Your task to perform on an android device: change your default location settings in chrome Image 0: 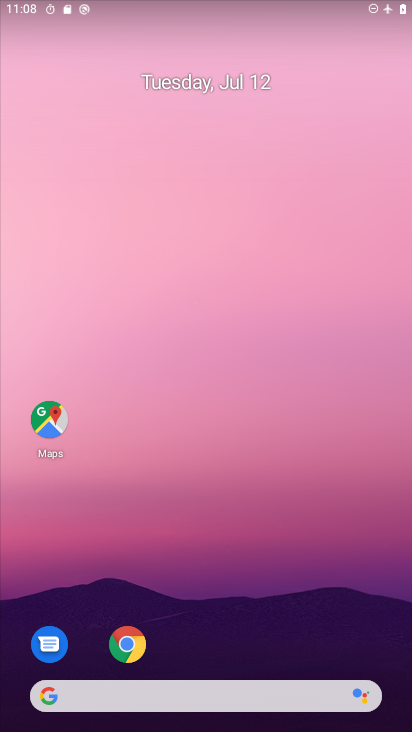
Step 0: click (137, 637)
Your task to perform on an android device: change your default location settings in chrome Image 1: 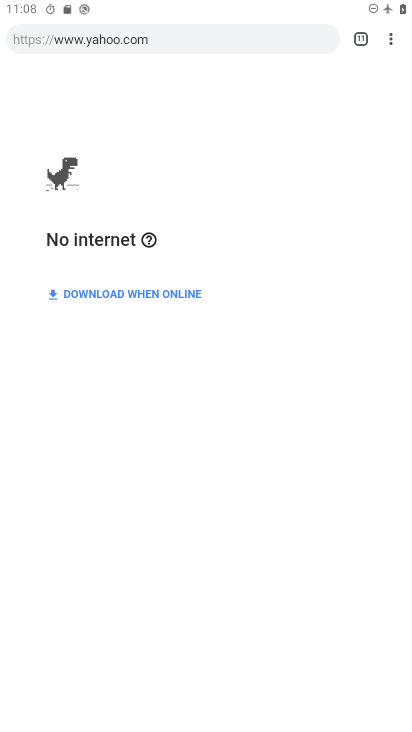
Step 1: click (386, 42)
Your task to perform on an android device: change your default location settings in chrome Image 2: 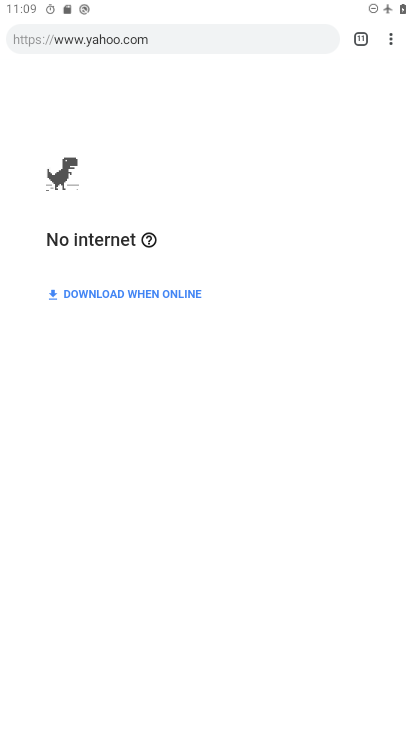
Step 2: click (388, 42)
Your task to perform on an android device: change your default location settings in chrome Image 3: 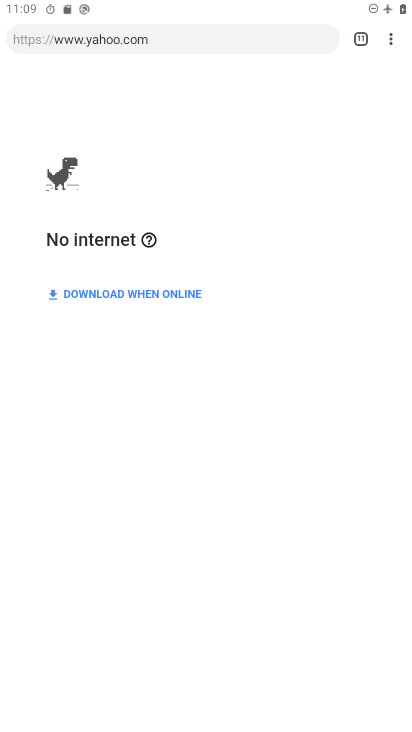
Step 3: click (391, 45)
Your task to perform on an android device: change your default location settings in chrome Image 4: 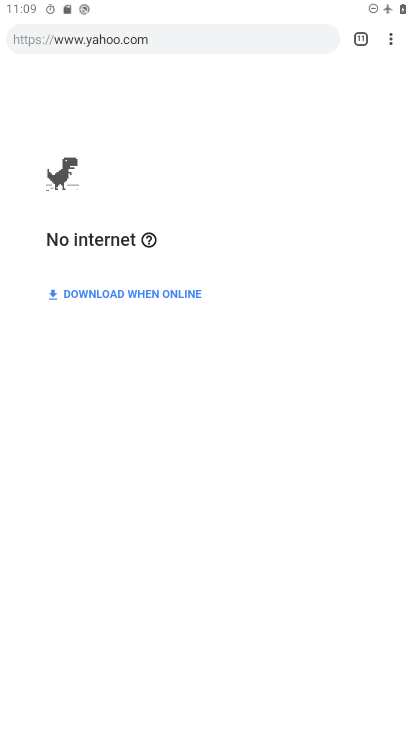
Step 4: drag from (391, 45) to (260, 429)
Your task to perform on an android device: change your default location settings in chrome Image 5: 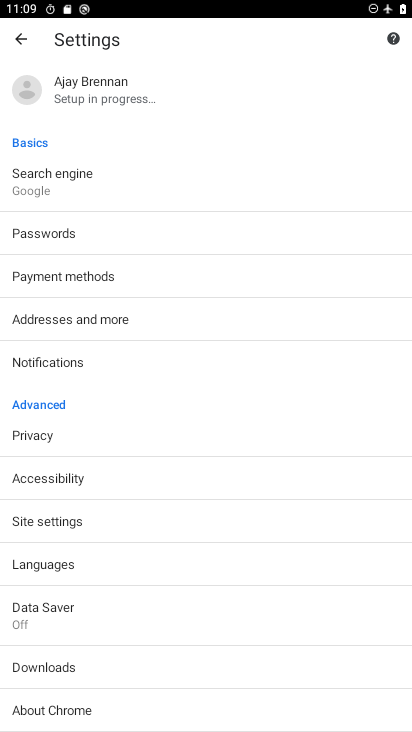
Step 5: click (99, 529)
Your task to perform on an android device: change your default location settings in chrome Image 6: 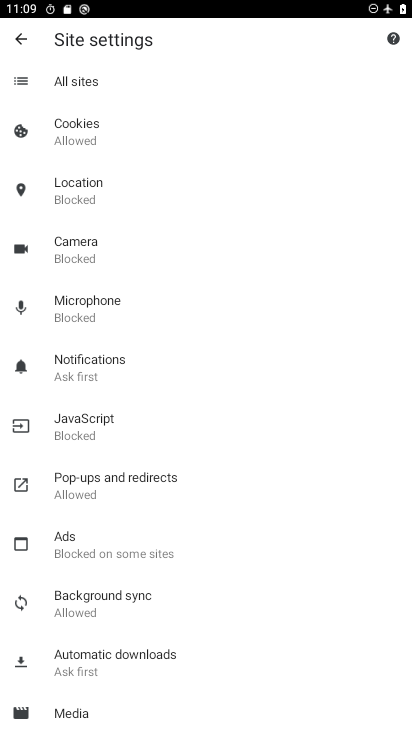
Step 6: click (109, 181)
Your task to perform on an android device: change your default location settings in chrome Image 7: 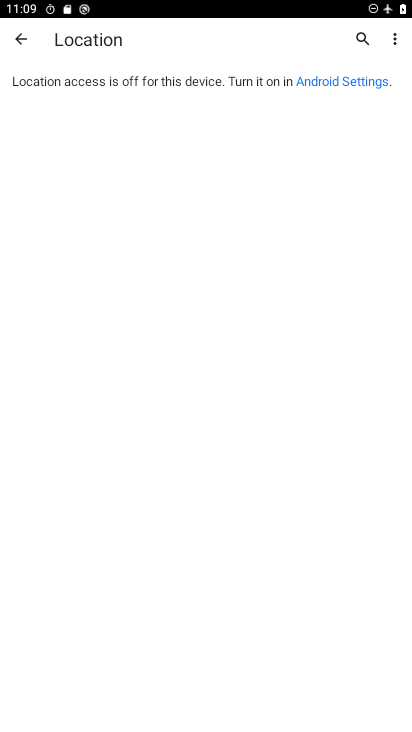
Step 7: task complete